Your task to perform on an android device: add a label to a message in the gmail app Image 0: 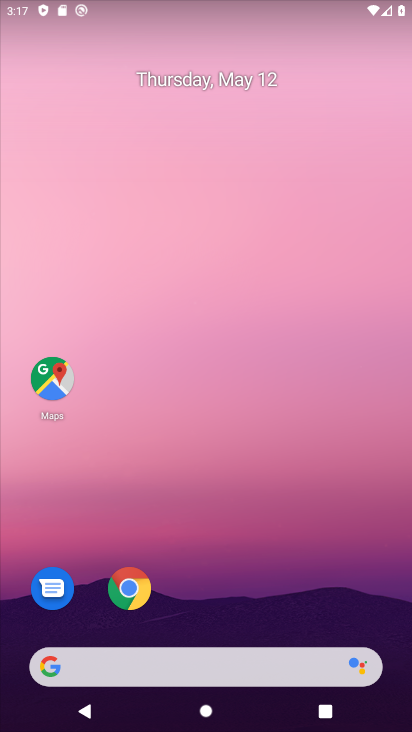
Step 0: drag from (284, 531) to (257, 262)
Your task to perform on an android device: add a label to a message in the gmail app Image 1: 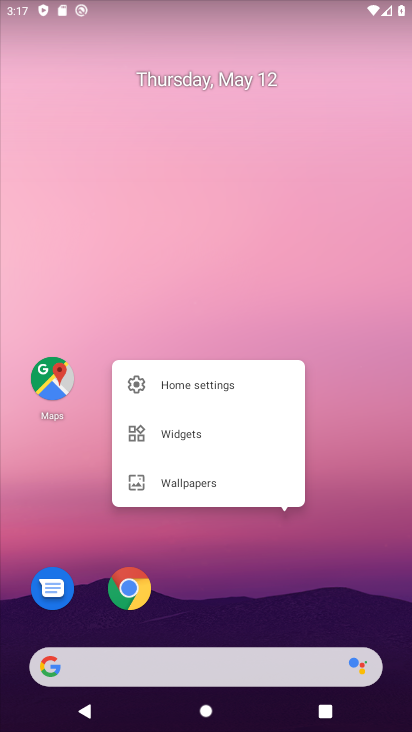
Step 1: click (312, 551)
Your task to perform on an android device: add a label to a message in the gmail app Image 2: 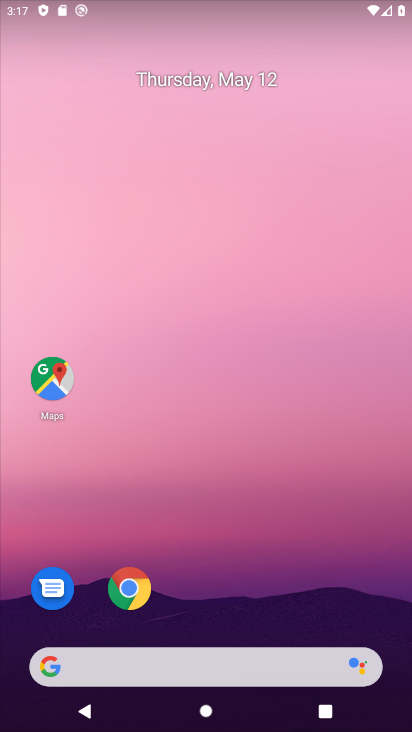
Step 2: drag from (279, 585) to (204, 27)
Your task to perform on an android device: add a label to a message in the gmail app Image 3: 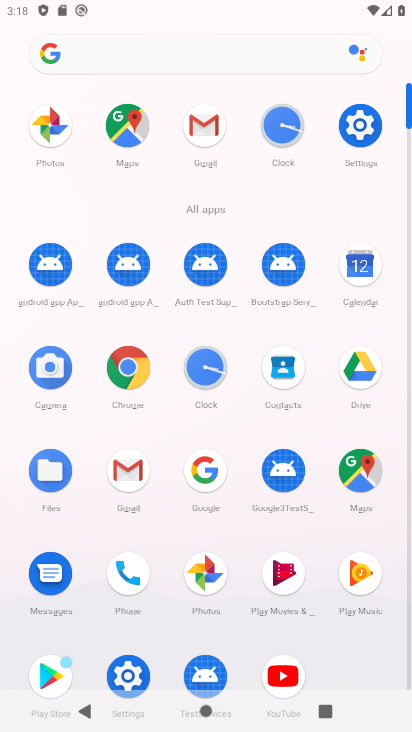
Step 3: click (195, 154)
Your task to perform on an android device: add a label to a message in the gmail app Image 4: 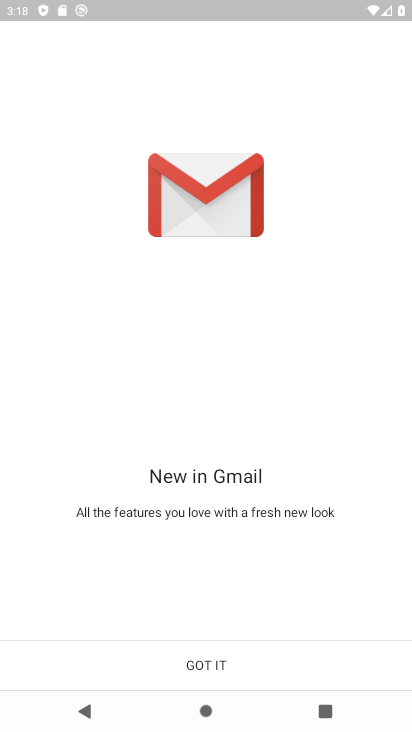
Step 4: click (199, 672)
Your task to perform on an android device: add a label to a message in the gmail app Image 5: 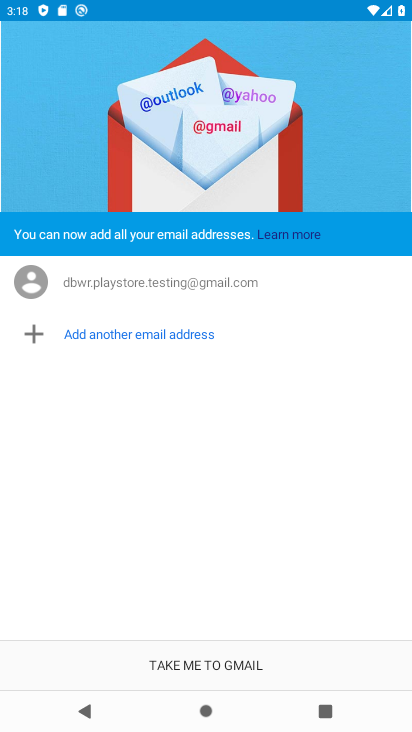
Step 5: click (199, 672)
Your task to perform on an android device: add a label to a message in the gmail app Image 6: 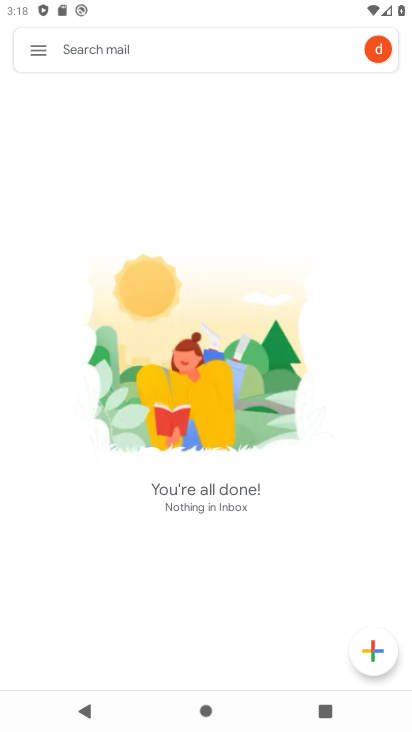
Step 6: click (23, 56)
Your task to perform on an android device: add a label to a message in the gmail app Image 7: 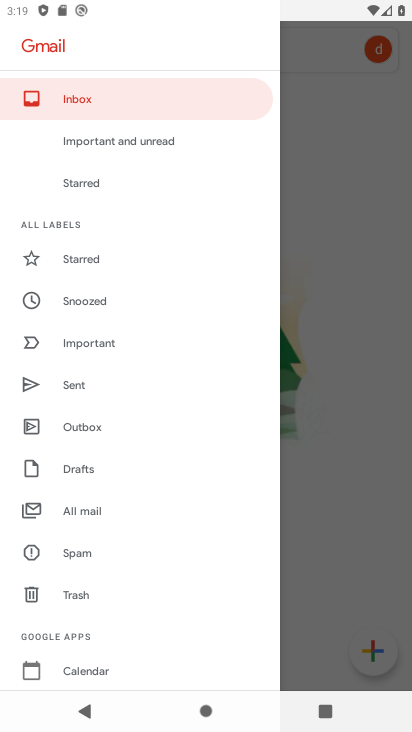
Step 7: task complete